Your task to perform on an android device: see sites visited before in the chrome app Image 0: 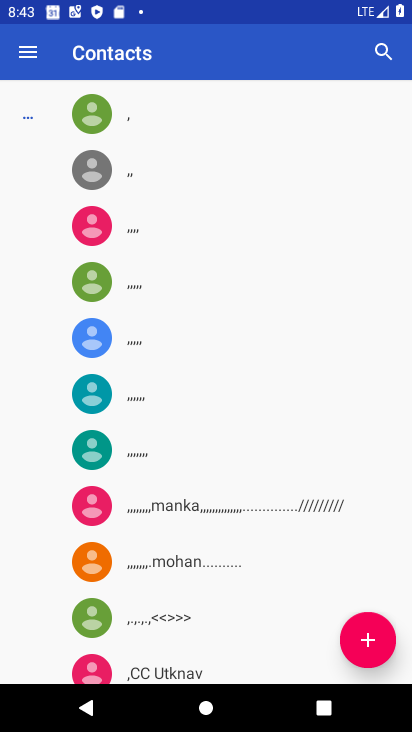
Step 0: press home button
Your task to perform on an android device: see sites visited before in the chrome app Image 1: 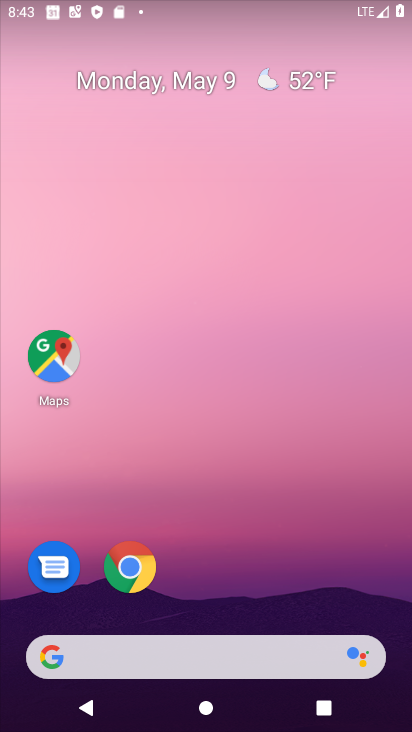
Step 1: click (141, 562)
Your task to perform on an android device: see sites visited before in the chrome app Image 2: 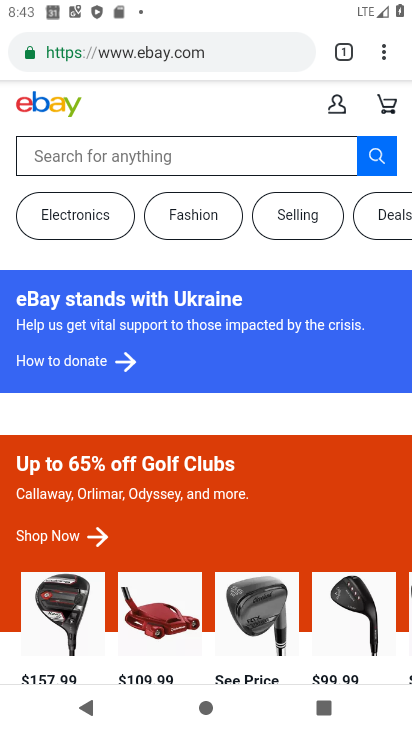
Step 2: click (382, 57)
Your task to perform on an android device: see sites visited before in the chrome app Image 3: 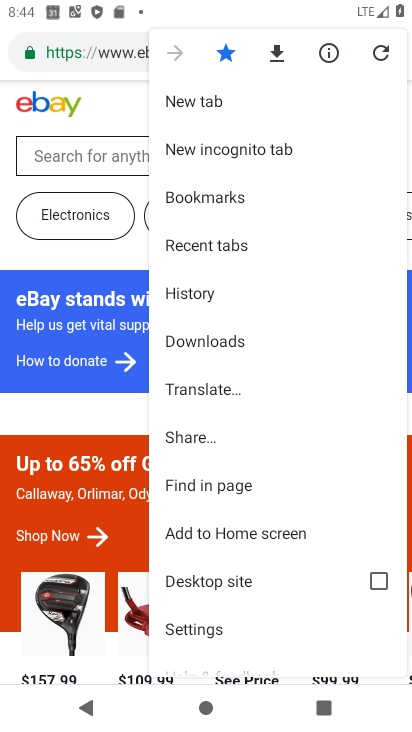
Step 3: click (200, 290)
Your task to perform on an android device: see sites visited before in the chrome app Image 4: 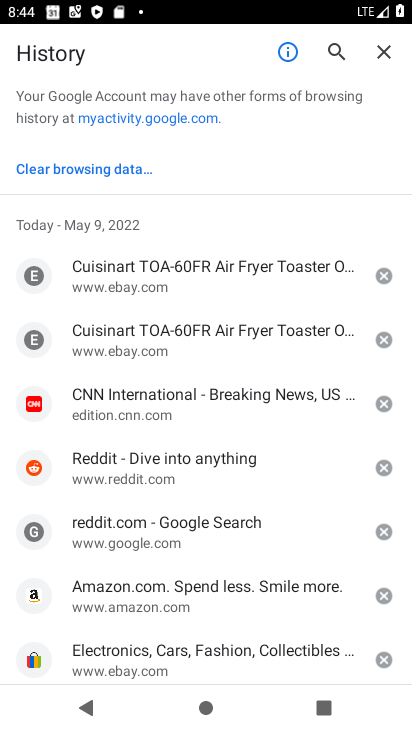
Step 4: task complete